Your task to perform on an android device: Open the web browser Image 0: 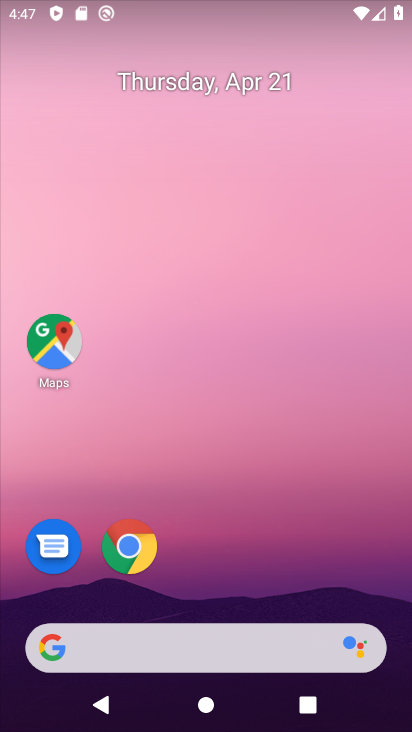
Step 0: drag from (270, 481) to (314, 50)
Your task to perform on an android device: Open the web browser Image 1: 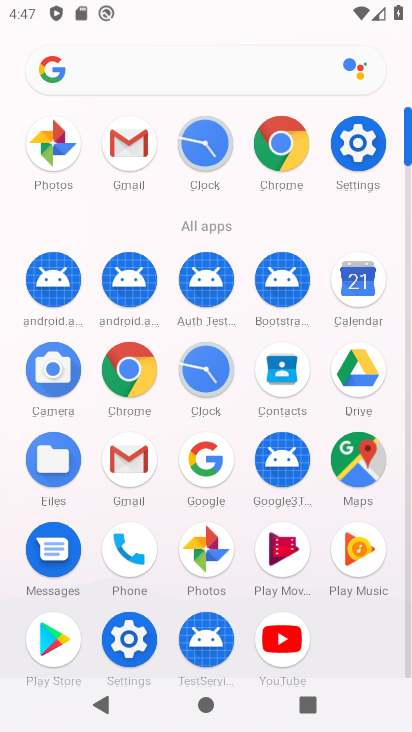
Step 1: click (284, 143)
Your task to perform on an android device: Open the web browser Image 2: 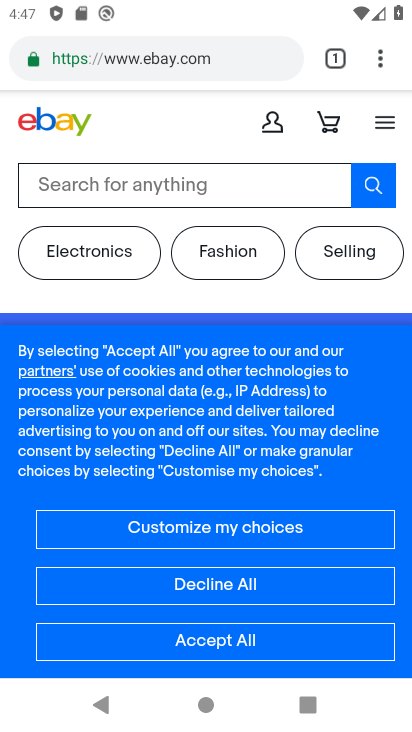
Step 2: task complete